Your task to perform on an android device: Go to Amazon Image 0: 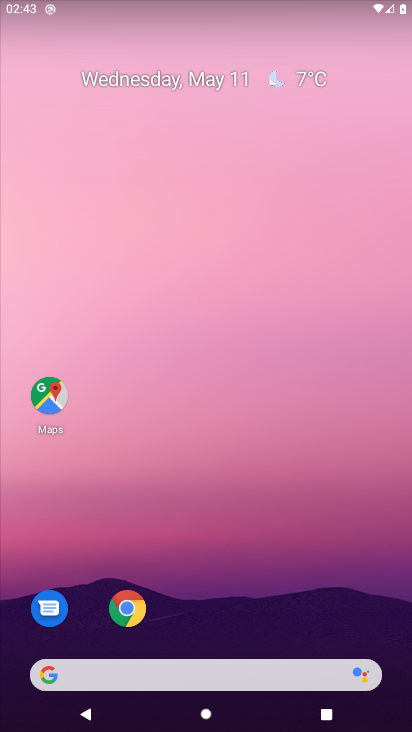
Step 0: drag from (213, 599) to (235, 143)
Your task to perform on an android device: Go to Amazon Image 1: 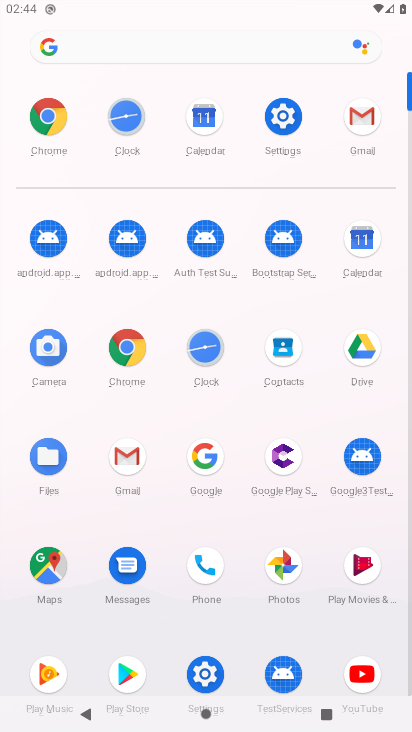
Step 1: click (124, 342)
Your task to perform on an android device: Go to Amazon Image 2: 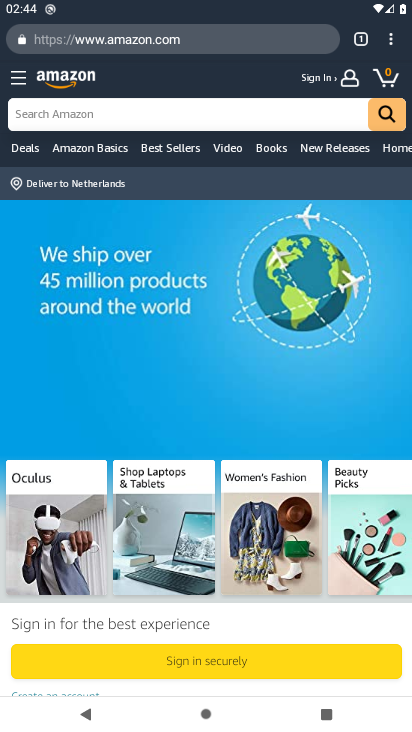
Step 2: task complete